Your task to perform on an android device: Go to network settings Image 0: 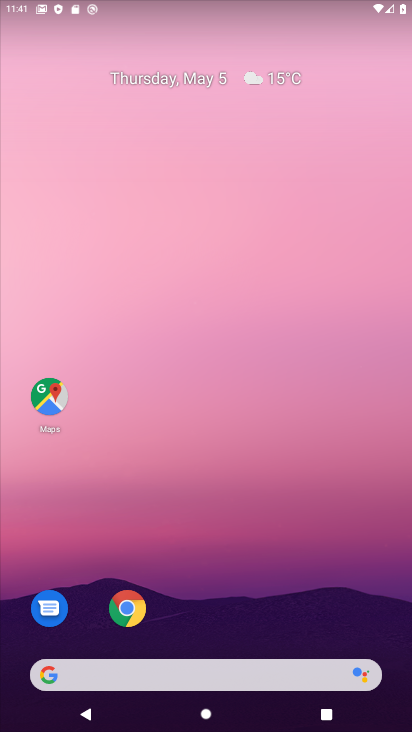
Step 0: drag from (217, 564) to (296, 146)
Your task to perform on an android device: Go to network settings Image 1: 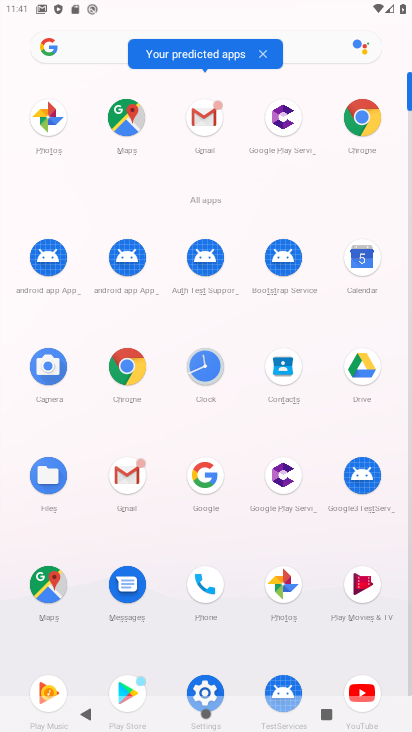
Step 1: drag from (248, 580) to (248, 430)
Your task to perform on an android device: Go to network settings Image 2: 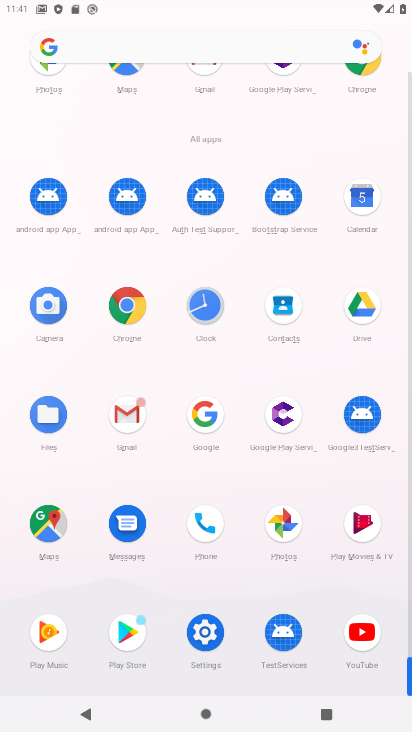
Step 2: click (205, 639)
Your task to perform on an android device: Go to network settings Image 3: 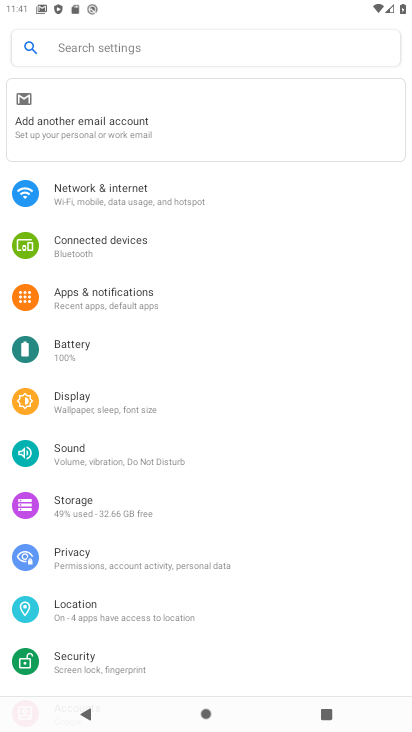
Step 3: click (129, 184)
Your task to perform on an android device: Go to network settings Image 4: 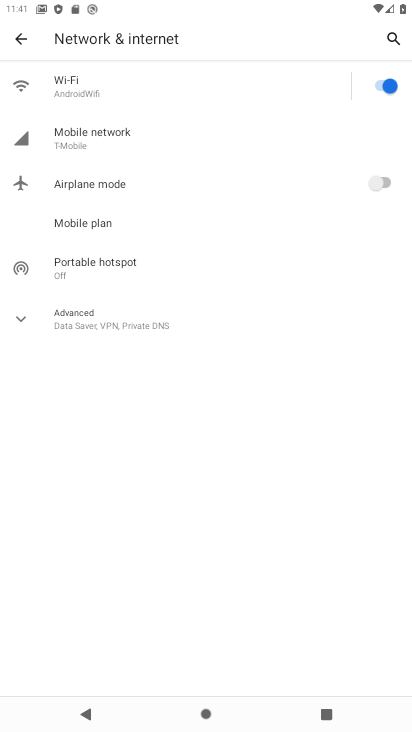
Step 4: task complete